Your task to perform on an android device: change the clock display to show seconds Image 0: 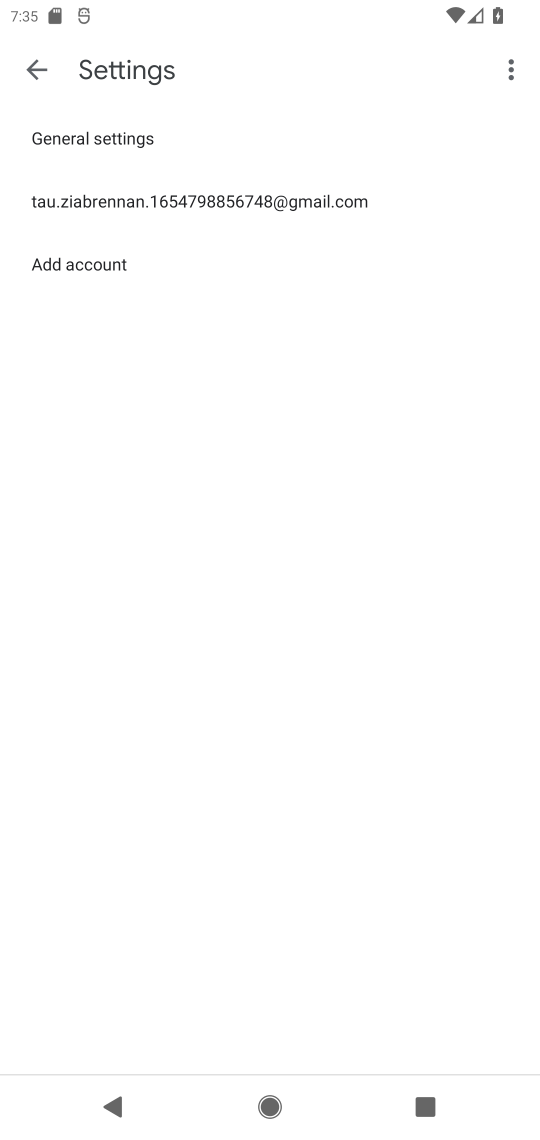
Step 0: press home button
Your task to perform on an android device: change the clock display to show seconds Image 1: 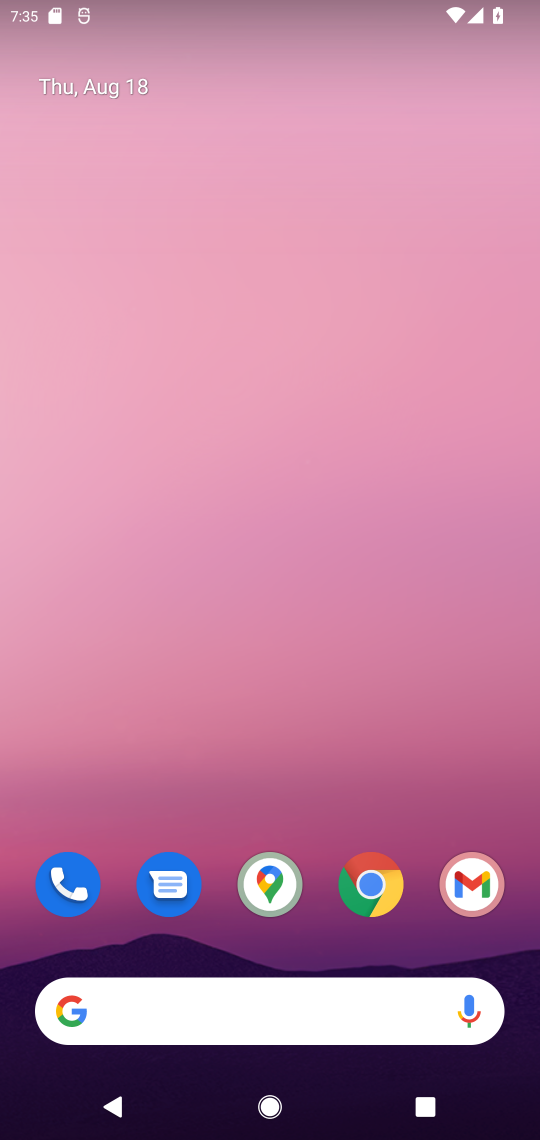
Step 1: drag from (209, 933) to (245, 325)
Your task to perform on an android device: change the clock display to show seconds Image 2: 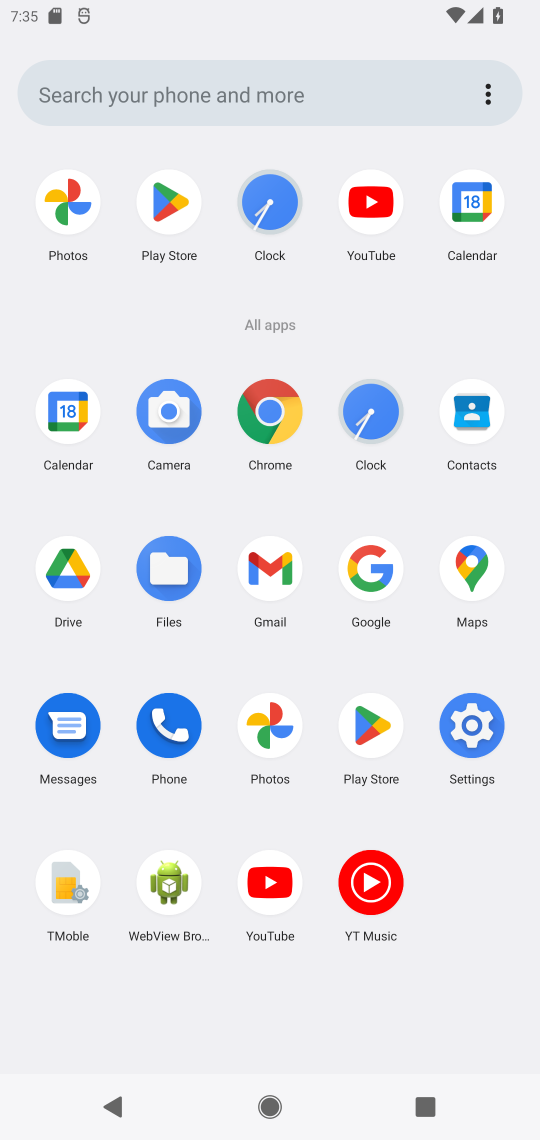
Step 2: click (261, 180)
Your task to perform on an android device: change the clock display to show seconds Image 3: 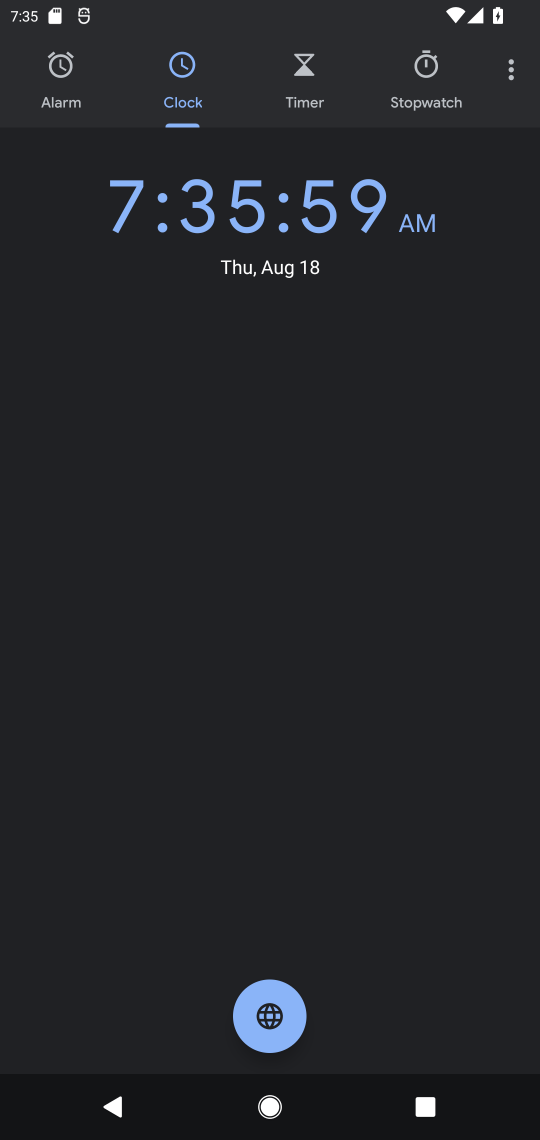
Step 3: click (518, 76)
Your task to perform on an android device: change the clock display to show seconds Image 4: 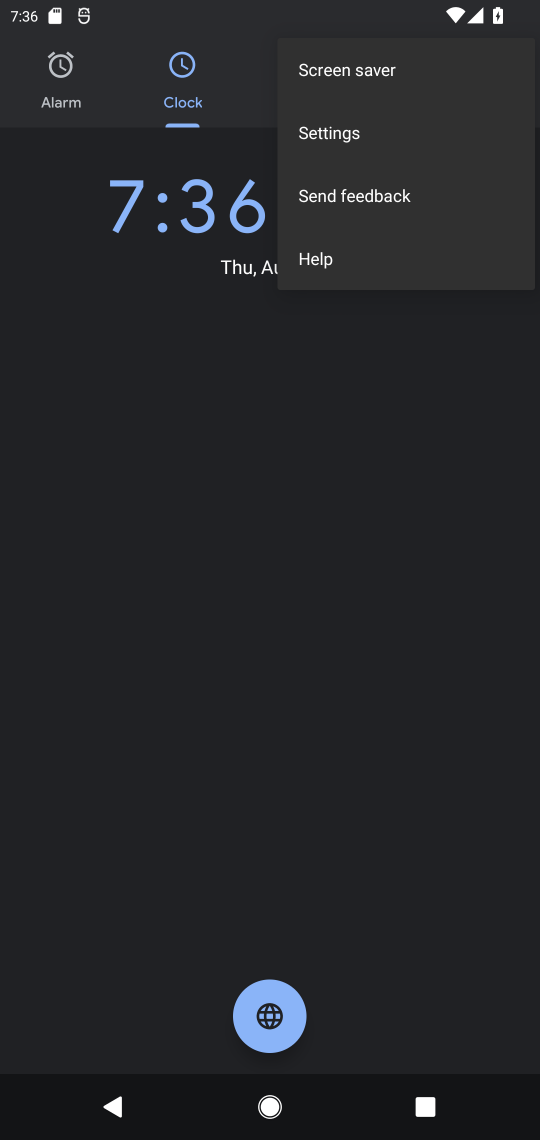
Step 4: click (363, 125)
Your task to perform on an android device: change the clock display to show seconds Image 5: 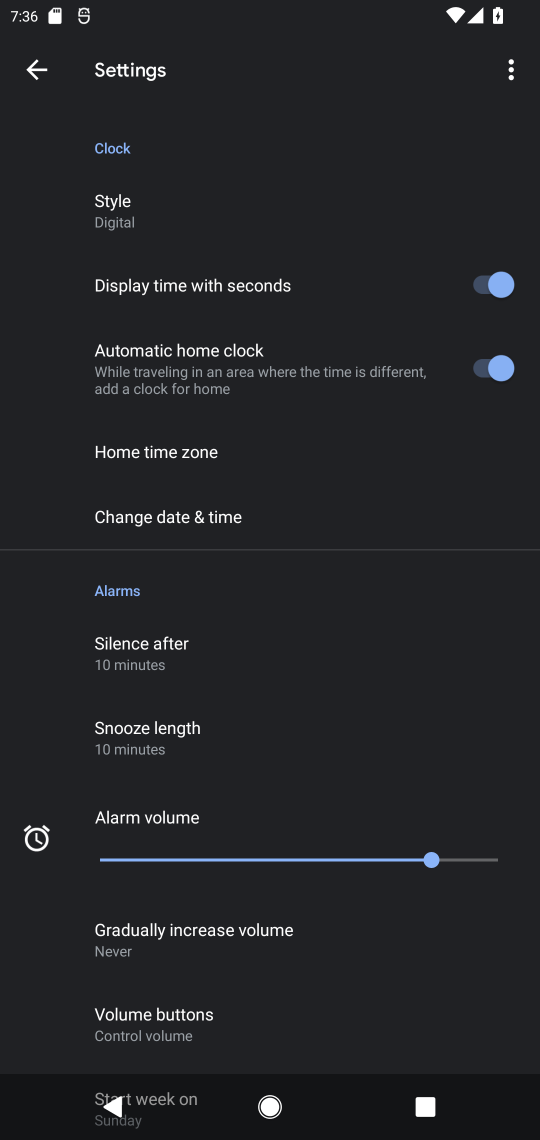
Step 5: task complete